Your task to perform on an android device: delete a single message in the gmail app Image 0: 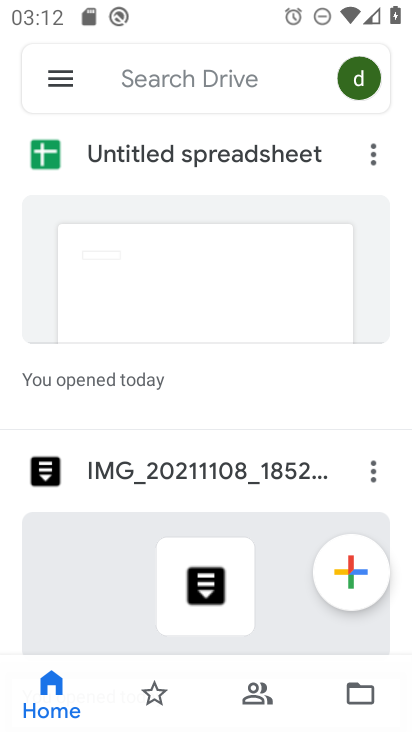
Step 0: press home button
Your task to perform on an android device: delete a single message in the gmail app Image 1: 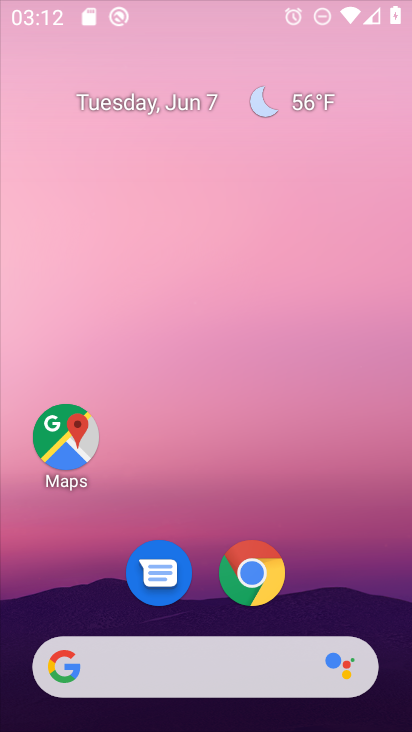
Step 1: drag from (338, 561) to (329, 0)
Your task to perform on an android device: delete a single message in the gmail app Image 2: 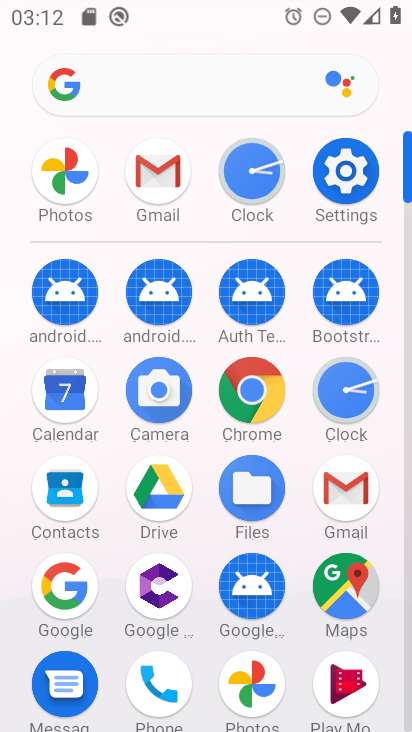
Step 2: click (153, 167)
Your task to perform on an android device: delete a single message in the gmail app Image 3: 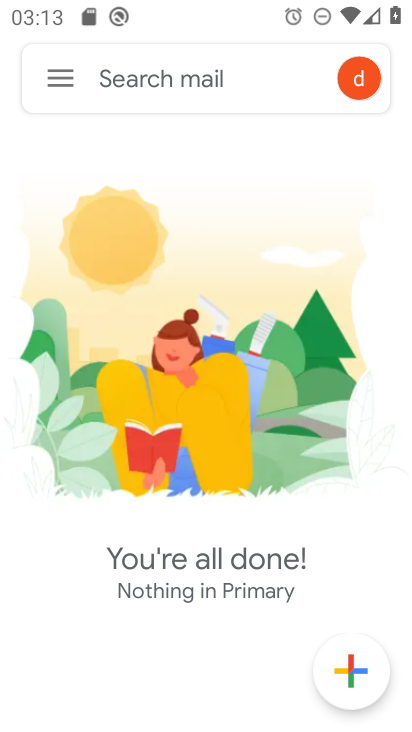
Step 3: click (62, 73)
Your task to perform on an android device: delete a single message in the gmail app Image 4: 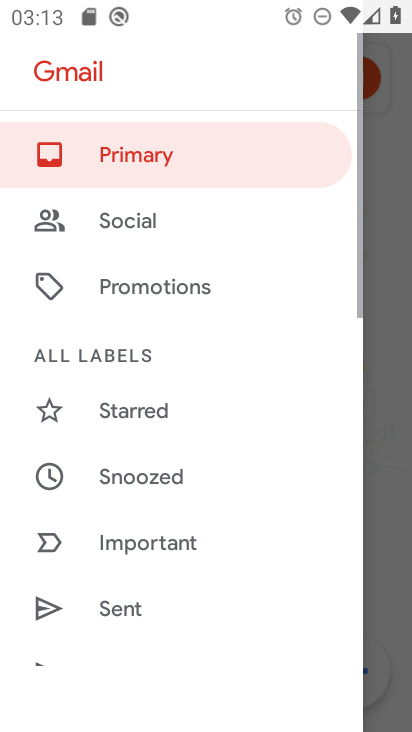
Step 4: drag from (131, 620) to (100, 120)
Your task to perform on an android device: delete a single message in the gmail app Image 5: 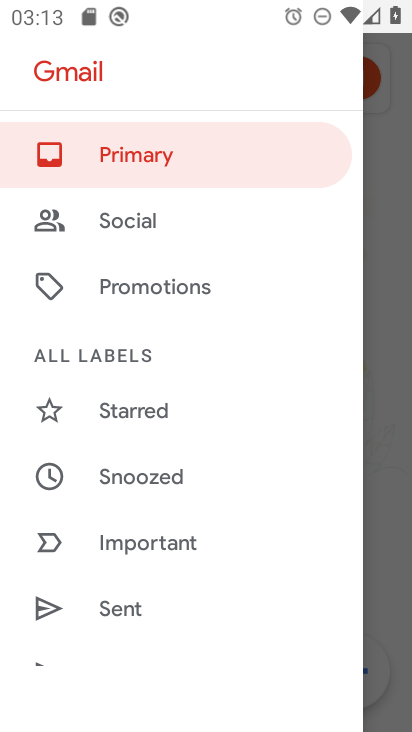
Step 5: drag from (110, 615) to (127, 167)
Your task to perform on an android device: delete a single message in the gmail app Image 6: 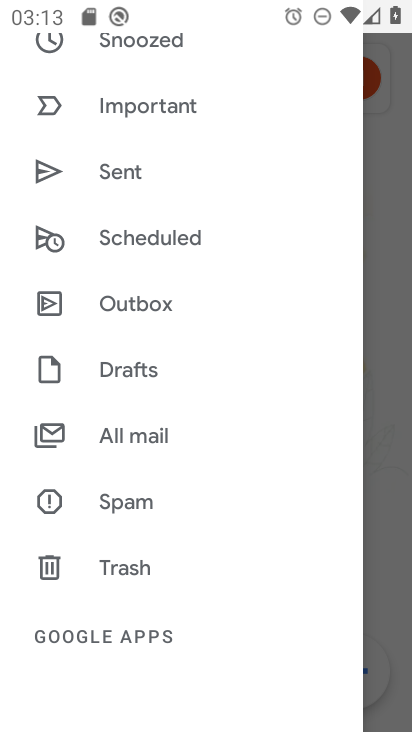
Step 6: click (142, 419)
Your task to perform on an android device: delete a single message in the gmail app Image 7: 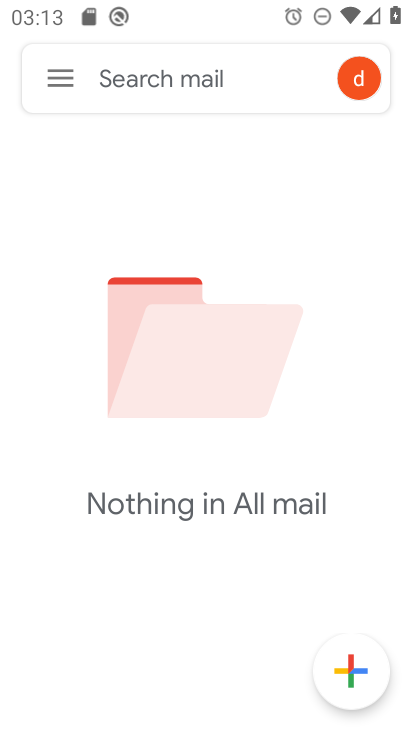
Step 7: task complete